Your task to perform on an android device: turn on the 24-hour format for clock Image 0: 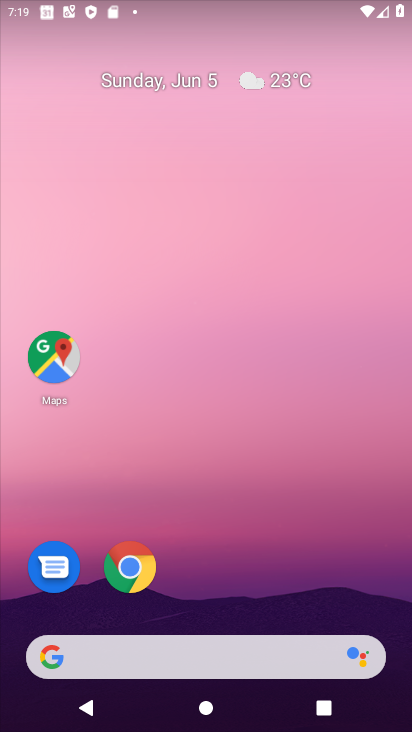
Step 0: drag from (383, 633) to (241, 90)
Your task to perform on an android device: turn on the 24-hour format for clock Image 1: 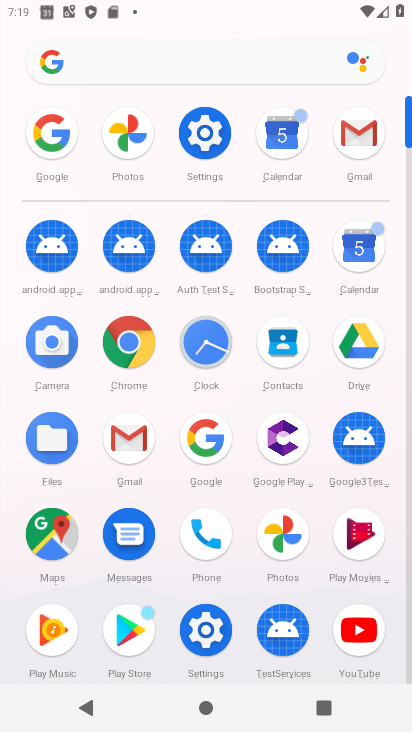
Step 1: click (212, 349)
Your task to perform on an android device: turn on the 24-hour format for clock Image 2: 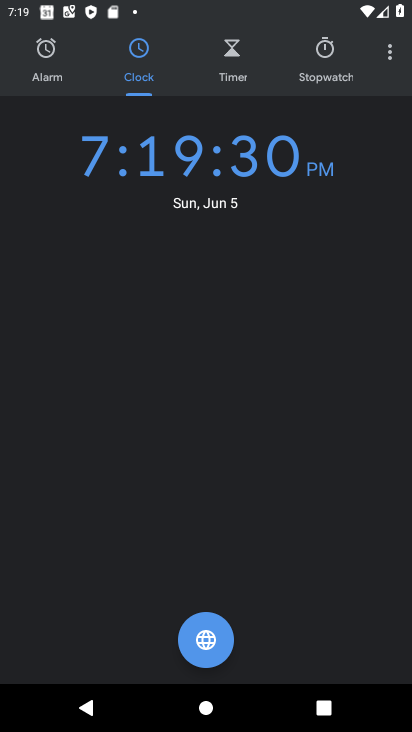
Step 2: click (383, 44)
Your task to perform on an android device: turn on the 24-hour format for clock Image 3: 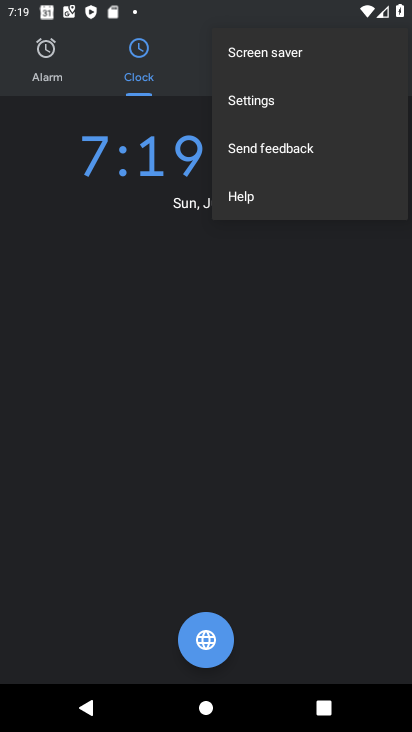
Step 3: click (287, 91)
Your task to perform on an android device: turn on the 24-hour format for clock Image 4: 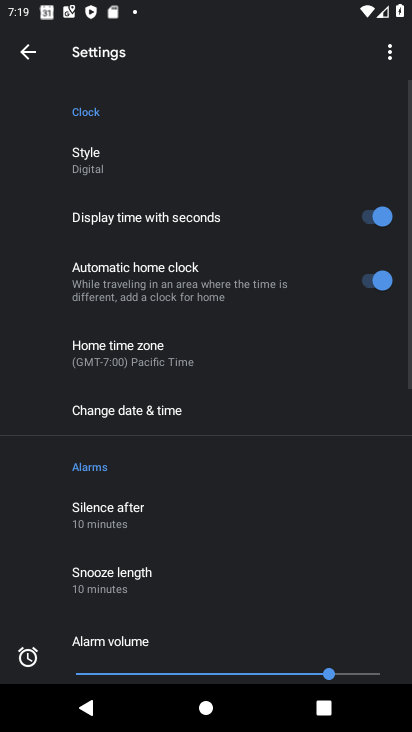
Step 4: click (186, 415)
Your task to perform on an android device: turn on the 24-hour format for clock Image 5: 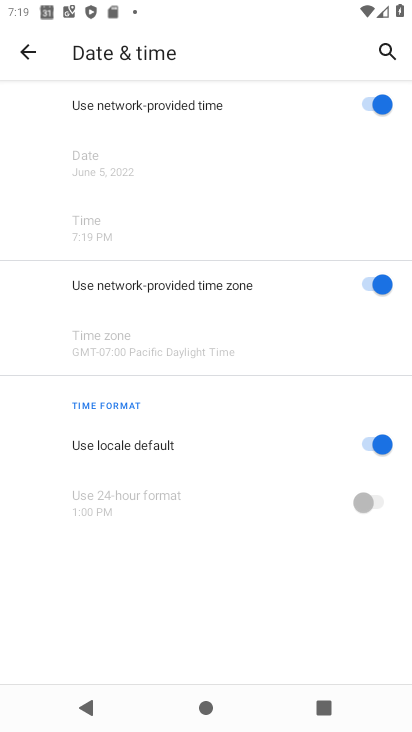
Step 5: task complete